Your task to perform on an android device: change timer sound Image 0: 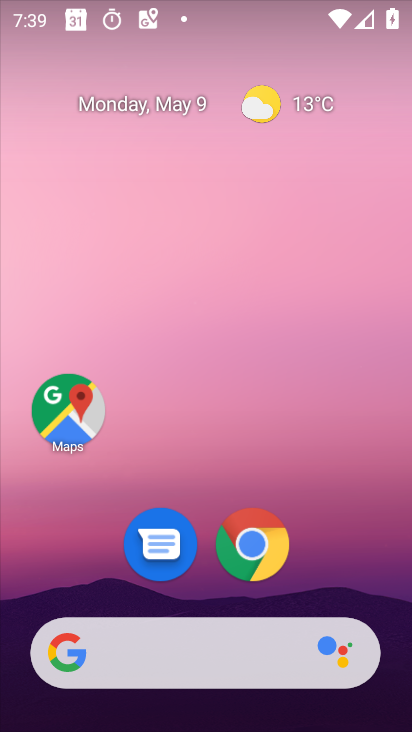
Step 0: drag from (368, 590) to (321, 59)
Your task to perform on an android device: change timer sound Image 1: 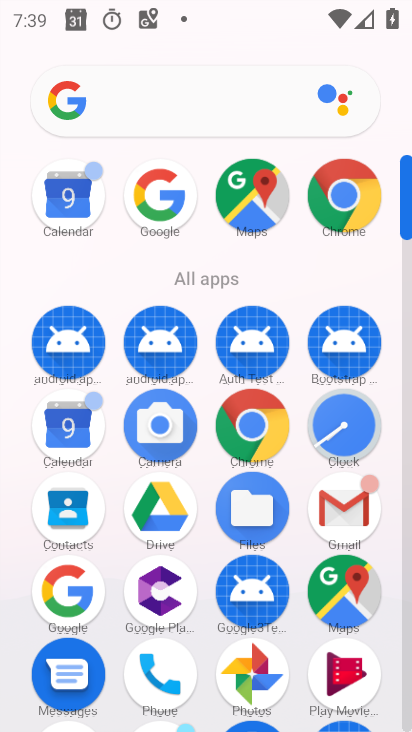
Step 1: click (350, 431)
Your task to perform on an android device: change timer sound Image 2: 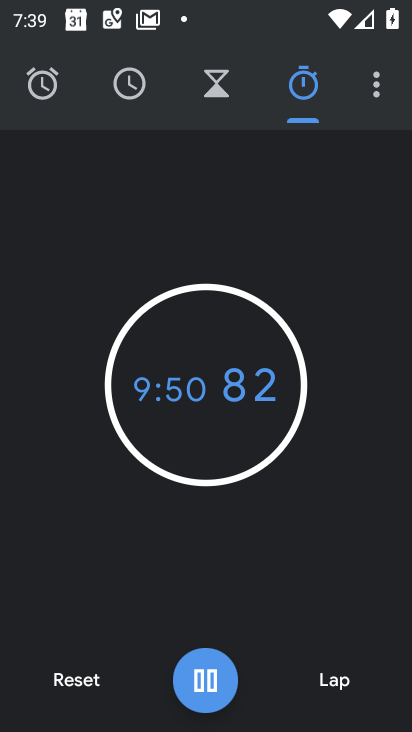
Step 2: click (386, 75)
Your task to perform on an android device: change timer sound Image 3: 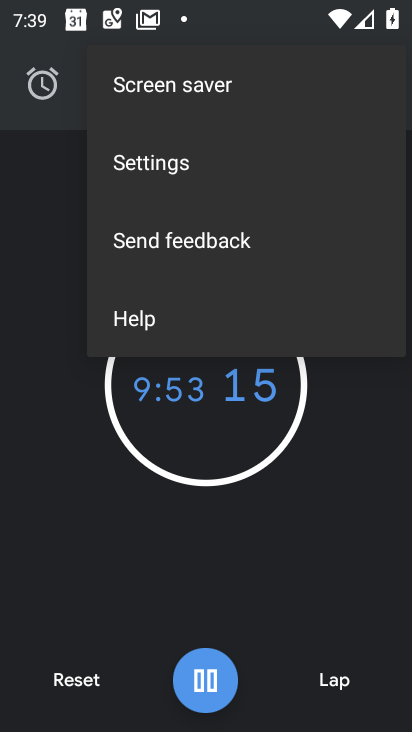
Step 3: click (177, 172)
Your task to perform on an android device: change timer sound Image 4: 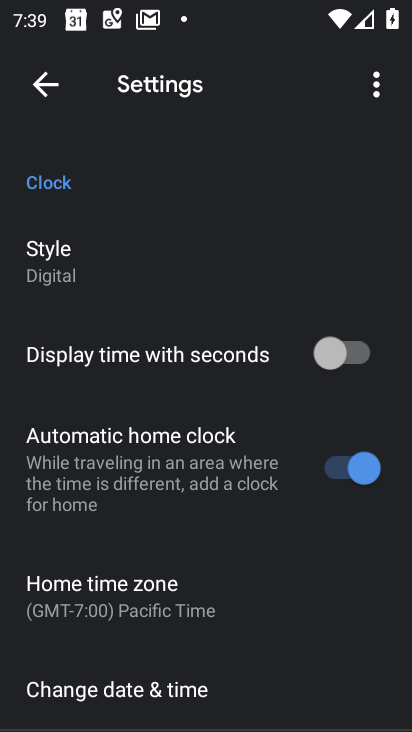
Step 4: drag from (116, 658) to (195, 352)
Your task to perform on an android device: change timer sound Image 5: 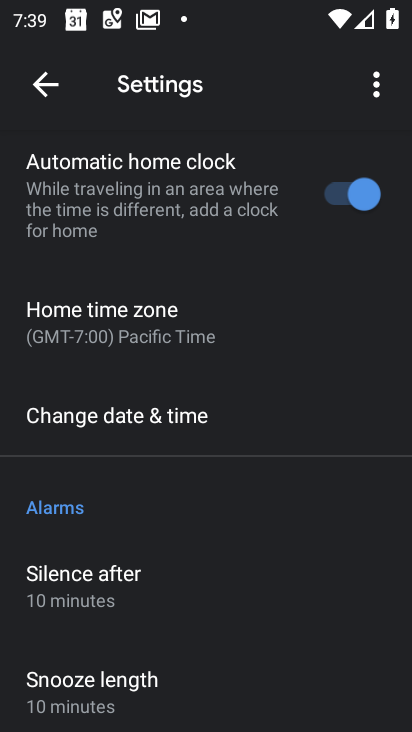
Step 5: drag from (187, 650) to (196, 327)
Your task to perform on an android device: change timer sound Image 6: 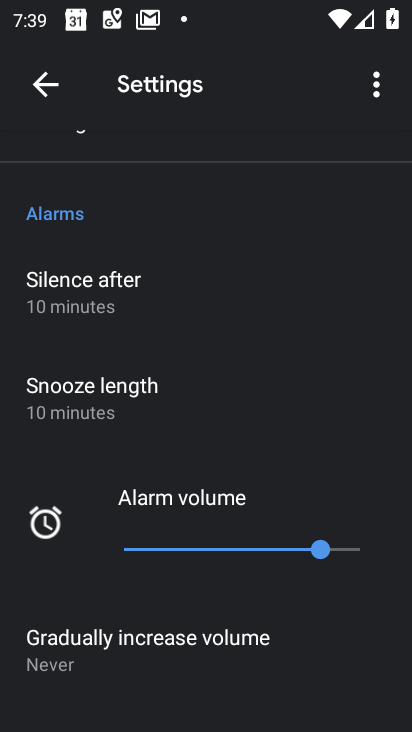
Step 6: drag from (183, 662) to (154, 369)
Your task to perform on an android device: change timer sound Image 7: 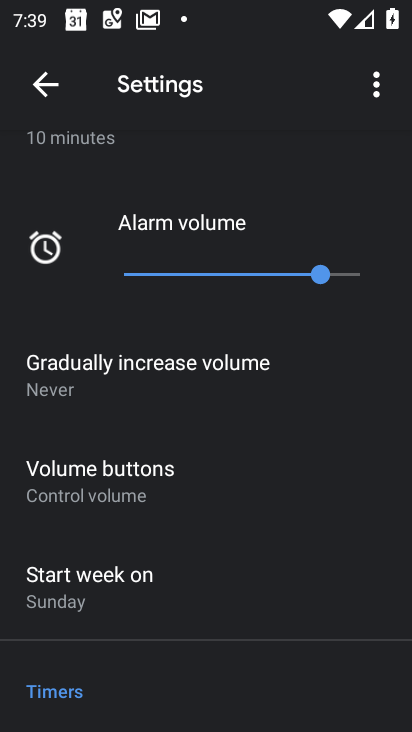
Step 7: drag from (163, 642) to (194, 209)
Your task to perform on an android device: change timer sound Image 8: 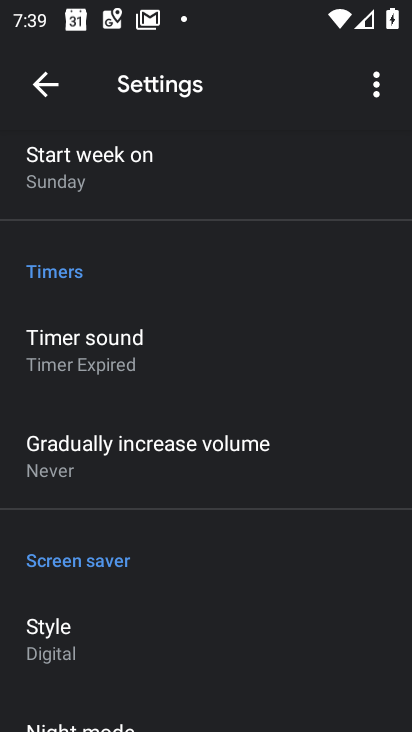
Step 8: drag from (194, 209) to (232, 631)
Your task to perform on an android device: change timer sound Image 9: 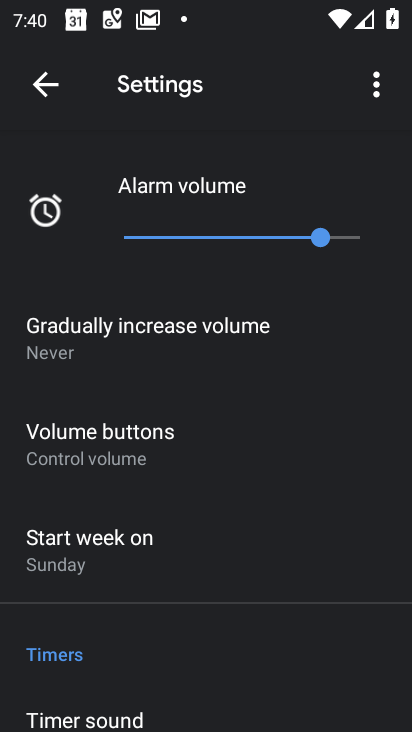
Step 9: drag from (209, 656) to (106, 234)
Your task to perform on an android device: change timer sound Image 10: 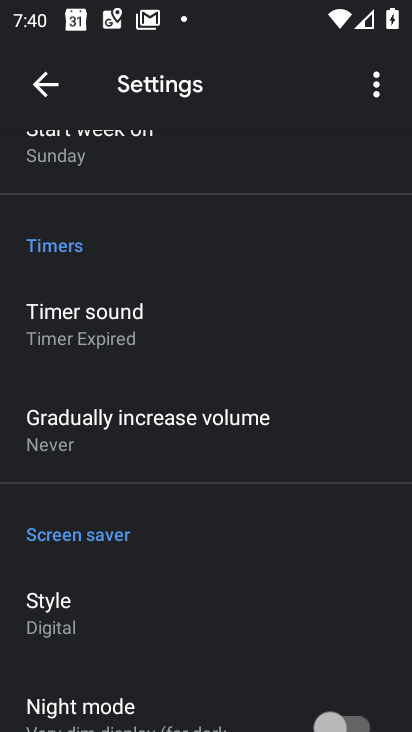
Step 10: click (103, 326)
Your task to perform on an android device: change timer sound Image 11: 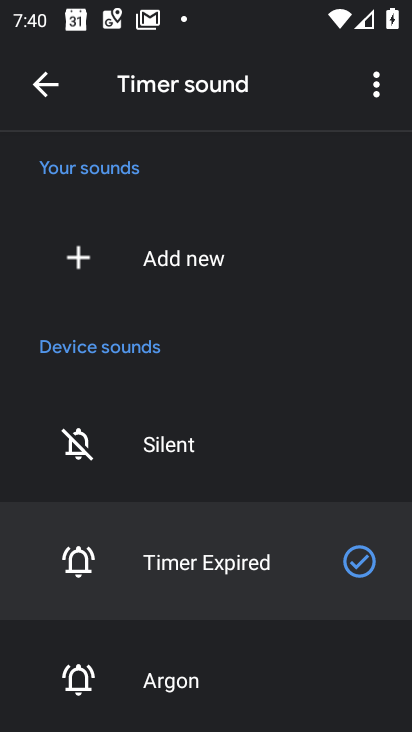
Step 11: click (144, 457)
Your task to perform on an android device: change timer sound Image 12: 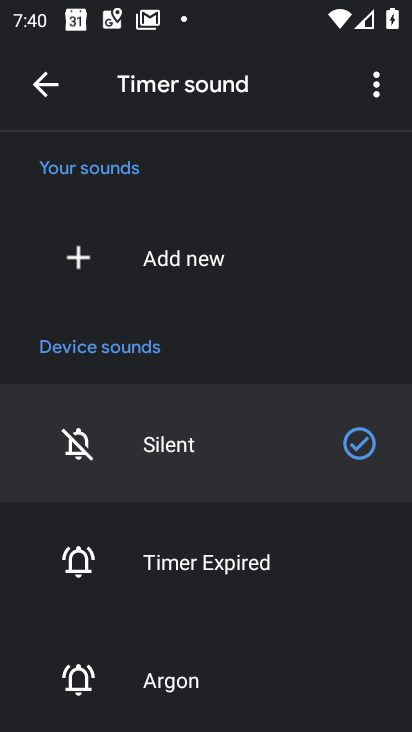
Step 12: task complete